Your task to perform on an android device: set the timer Image 0: 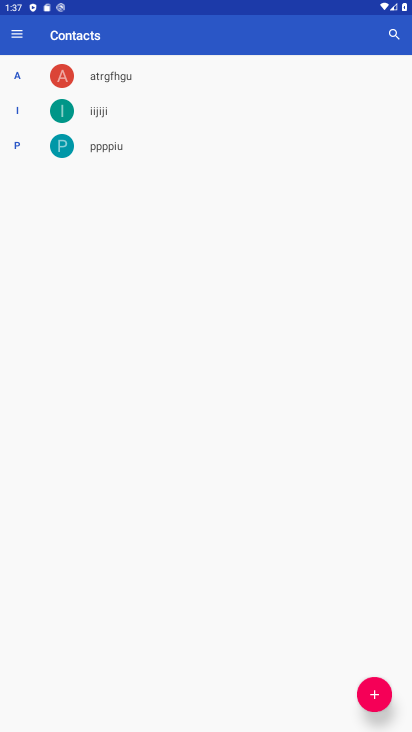
Step 0: press home button
Your task to perform on an android device: set the timer Image 1: 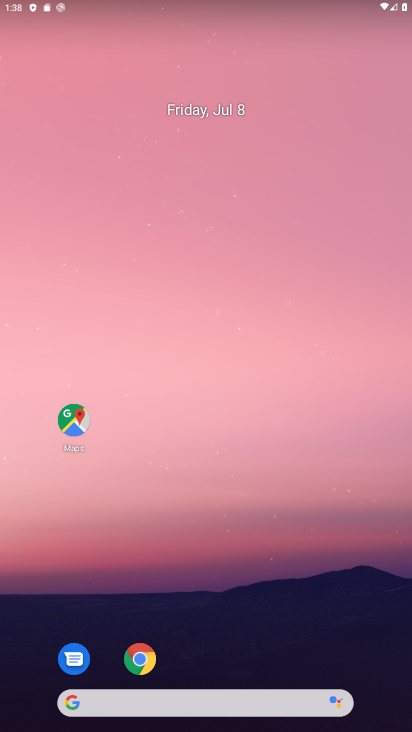
Step 1: drag from (307, 600) to (287, 170)
Your task to perform on an android device: set the timer Image 2: 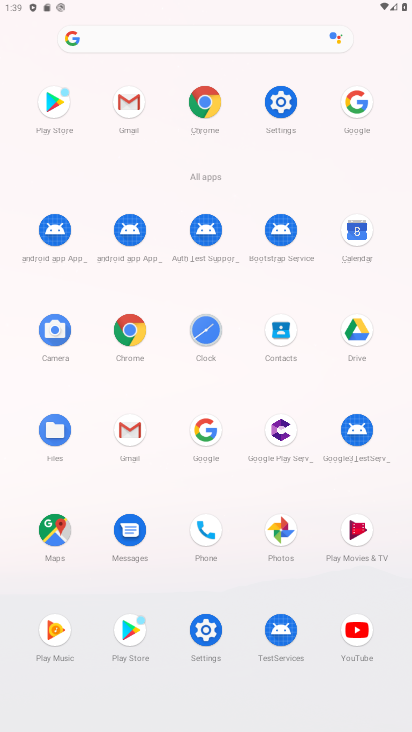
Step 2: click (342, 122)
Your task to perform on an android device: set the timer Image 3: 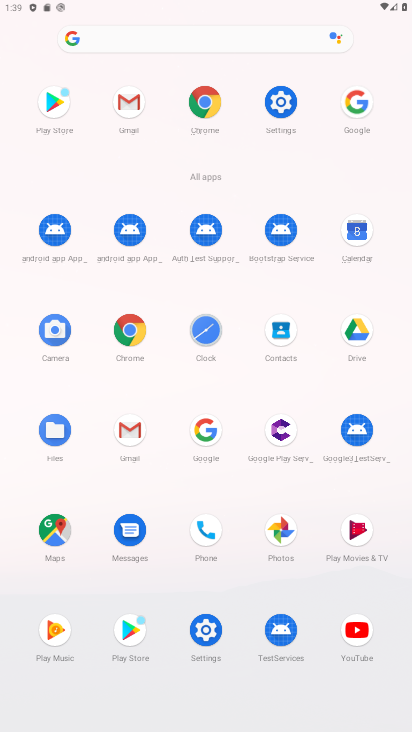
Step 3: click (342, 122)
Your task to perform on an android device: set the timer Image 4: 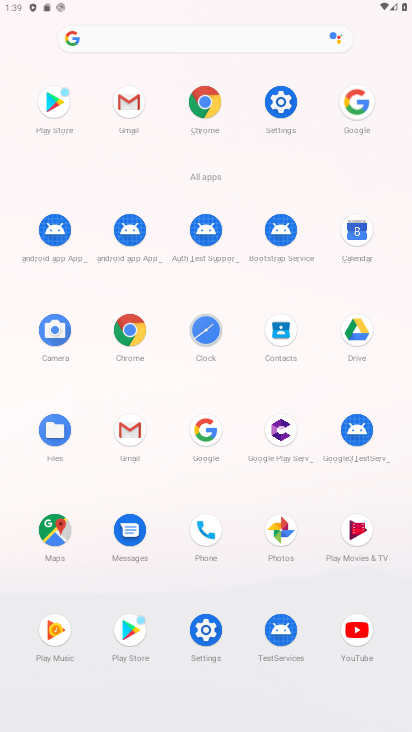
Step 4: click (342, 122)
Your task to perform on an android device: set the timer Image 5: 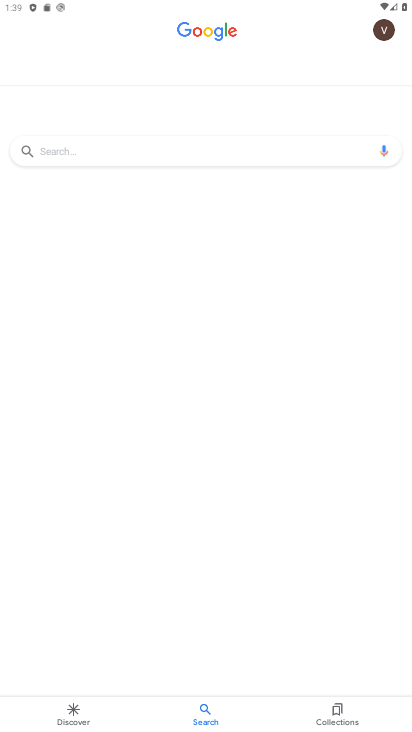
Step 5: press home button
Your task to perform on an android device: set the timer Image 6: 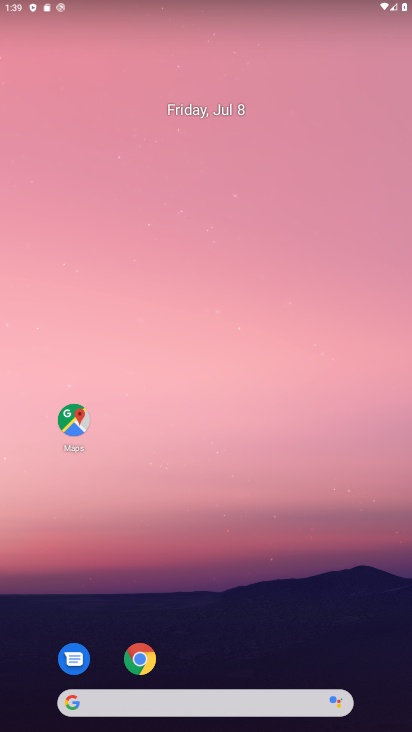
Step 6: drag from (323, 430) to (307, 184)
Your task to perform on an android device: set the timer Image 7: 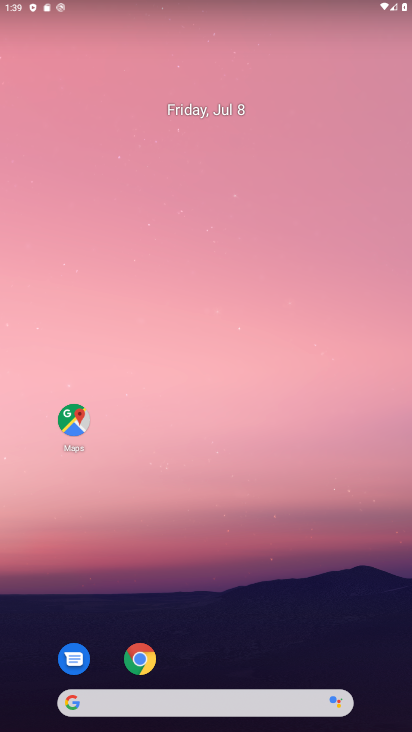
Step 7: drag from (314, 629) to (258, 1)
Your task to perform on an android device: set the timer Image 8: 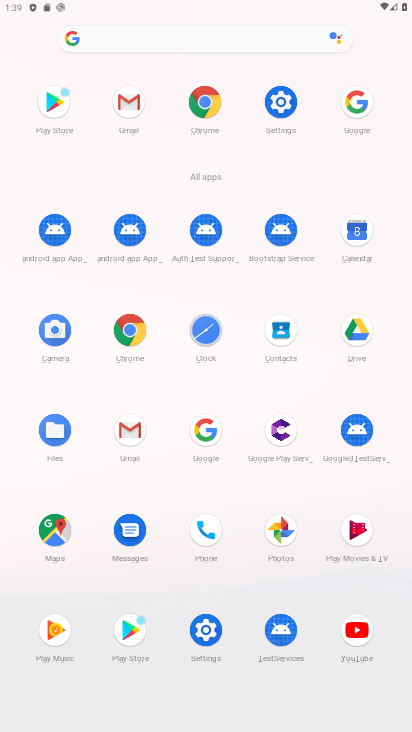
Step 8: click (208, 341)
Your task to perform on an android device: set the timer Image 9: 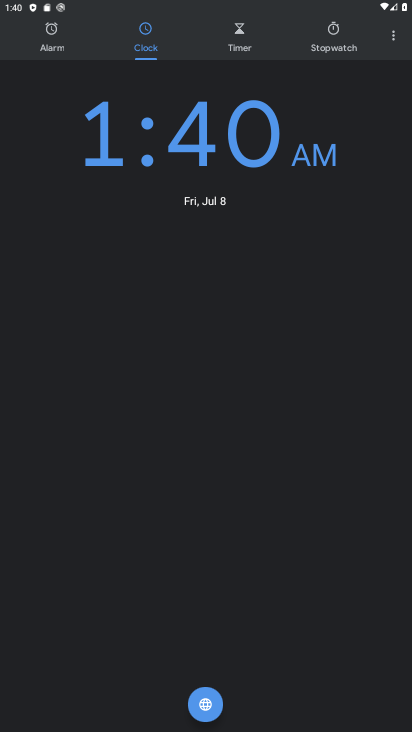
Step 9: click (267, 45)
Your task to perform on an android device: set the timer Image 10: 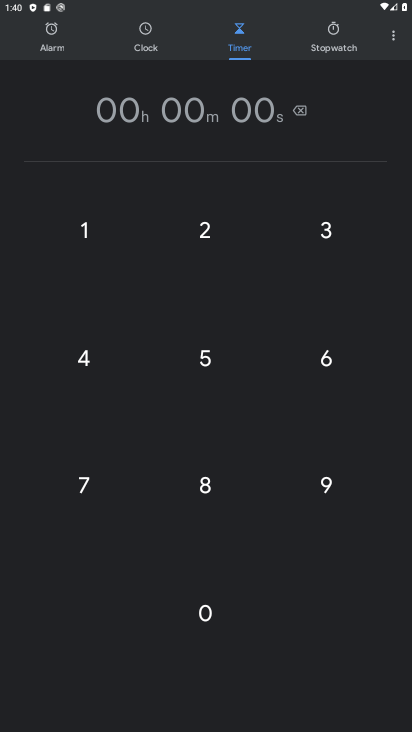
Step 10: click (320, 276)
Your task to perform on an android device: set the timer Image 11: 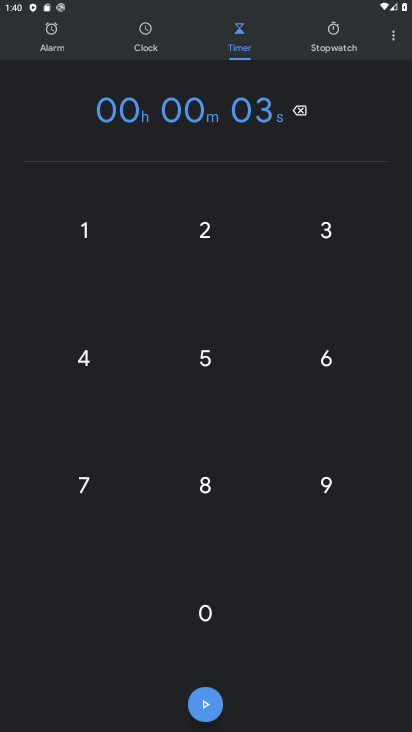
Step 11: click (339, 354)
Your task to perform on an android device: set the timer Image 12: 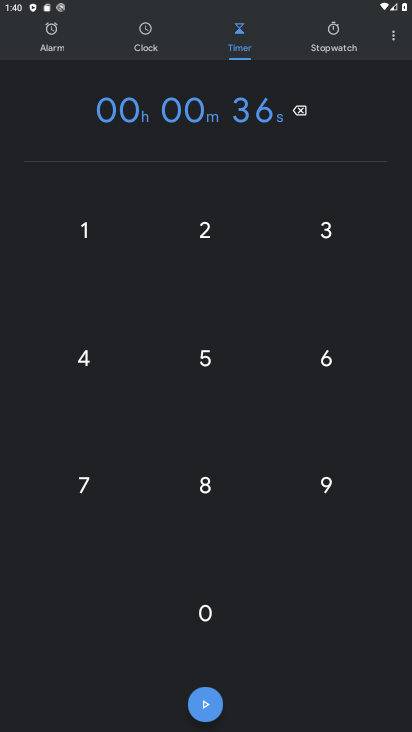
Step 12: task complete